Your task to perform on an android device: open chrome privacy settings Image 0: 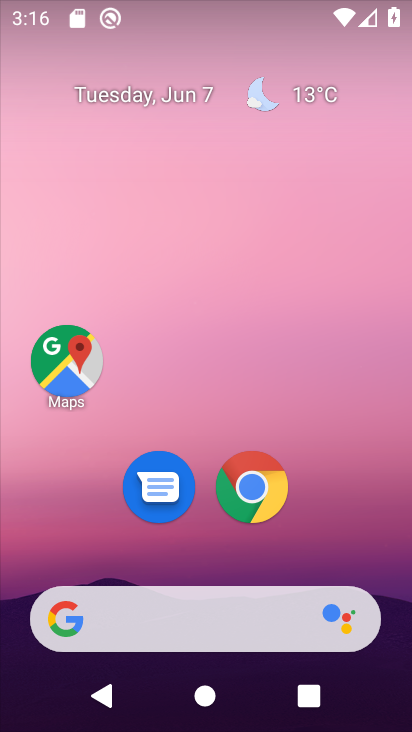
Step 0: press home button
Your task to perform on an android device: open chrome privacy settings Image 1: 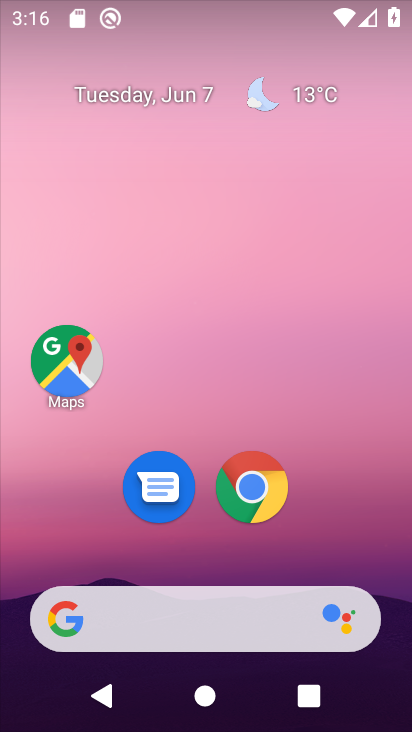
Step 1: click (249, 495)
Your task to perform on an android device: open chrome privacy settings Image 2: 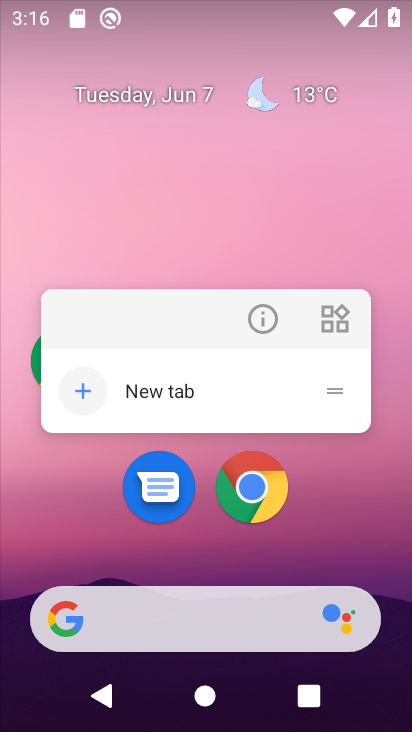
Step 2: click (249, 495)
Your task to perform on an android device: open chrome privacy settings Image 3: 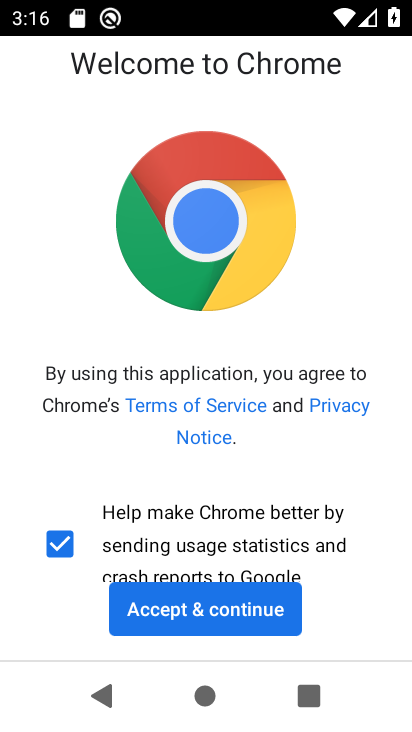
Step 3: click (235, 631)
Your task to perform on an android device: open chrome privacy settings Image 4: 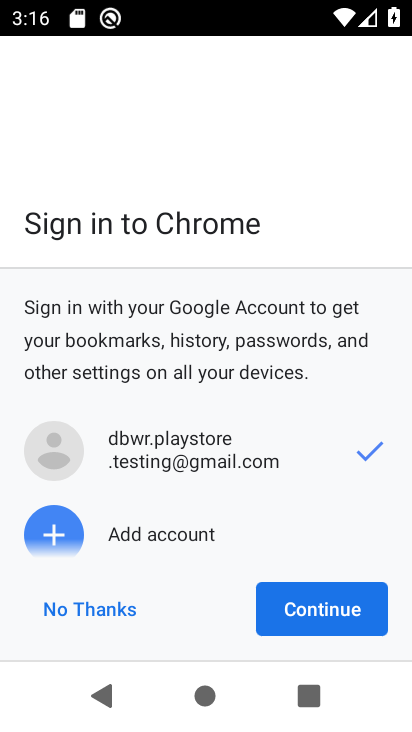
Step 4: click (297, 609)
Your task to perform on an android device: open chrome privacy settings Image 5: 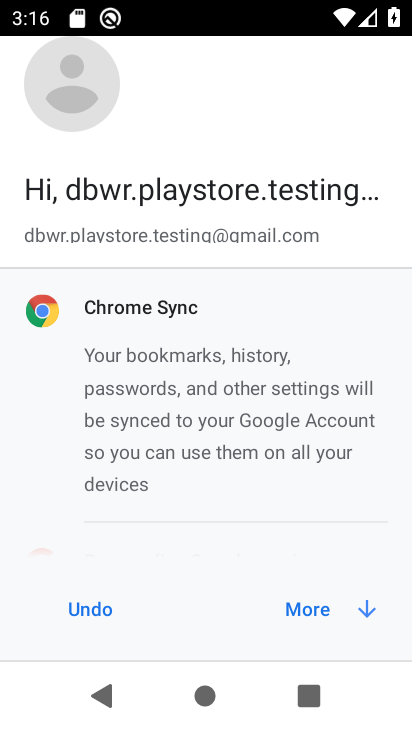
Step 5: click (301, 609)
Your task to perform on an android device: open chrome privacy settings Image 6: 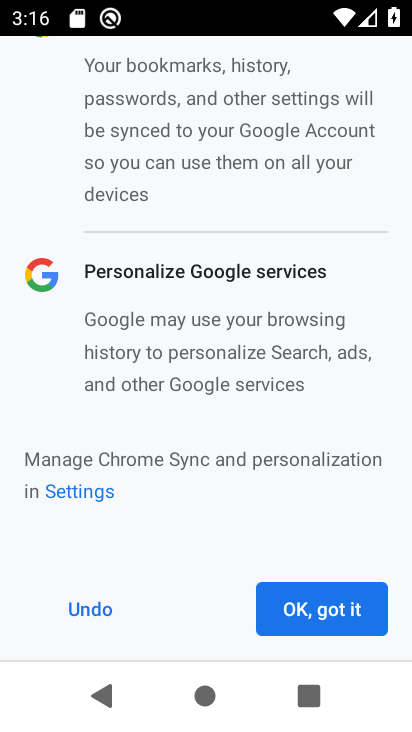
Step 6: click (306, 605)
Your task to perform on an android device: open chrome privacy settings Image 7: 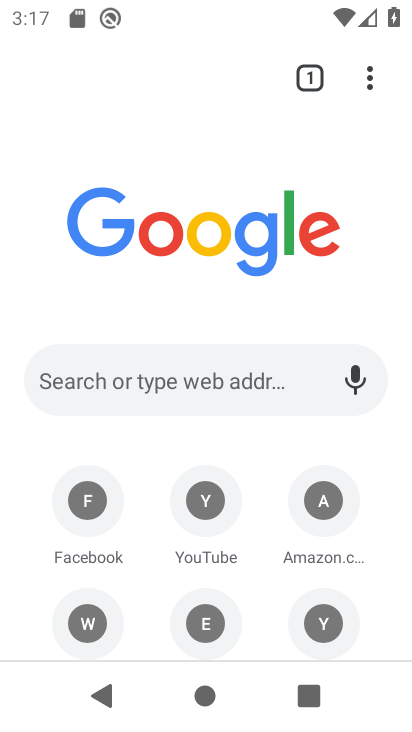
Step 7: click (358, 83)
Your task to perform on an android device: open chrome privacy settings Image 8: 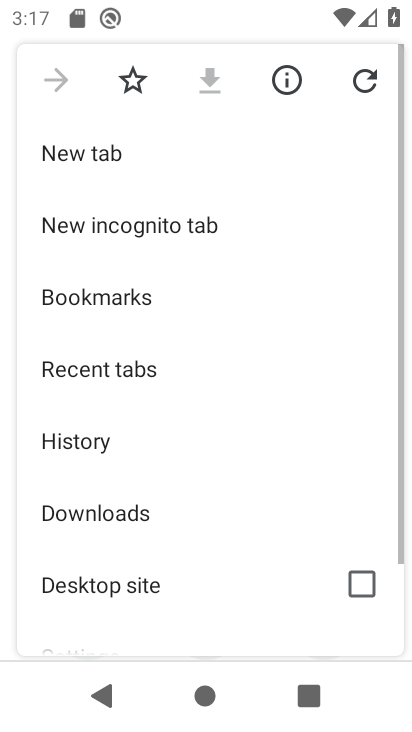
Step 8: drag from (223, 574) to (190, 215)
Your task to perform on an android device: open chrome privacy settings Image 9: 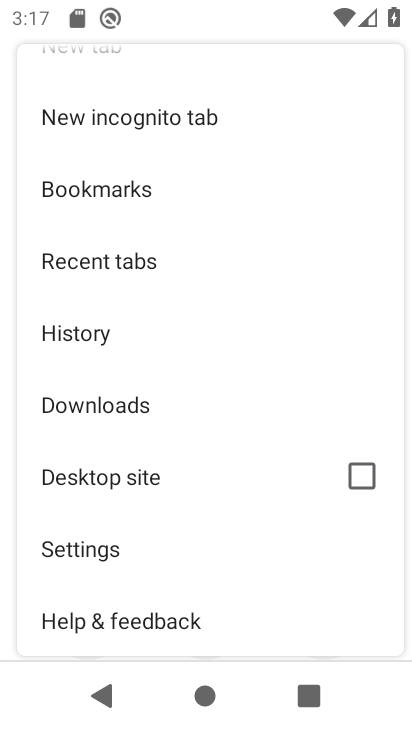
Step 9: click (144, 543)
Your task to perform on an android device: open chrome privacy settings Image 10: 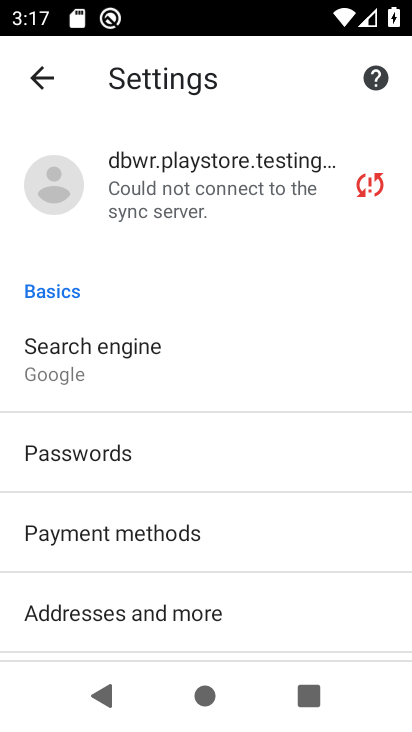
Step 10: drag from (246, 544) to (224, 110)
Your task to perform on an android device: open chrome privacy settings Image 11: 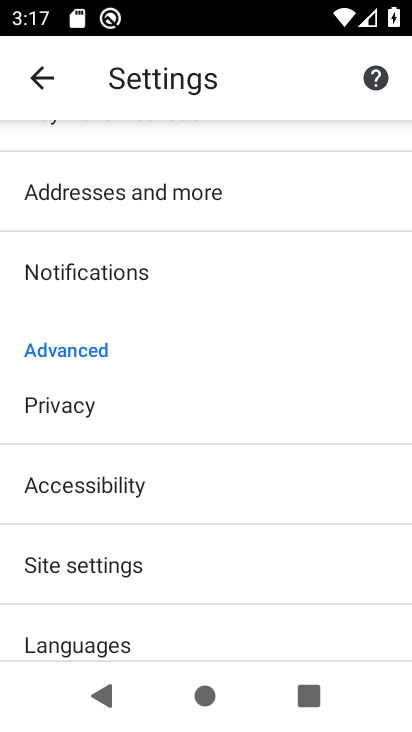
Step 11: click (100, 423)
Your task to perform on an android device: open chrome privacy settings Image 12: 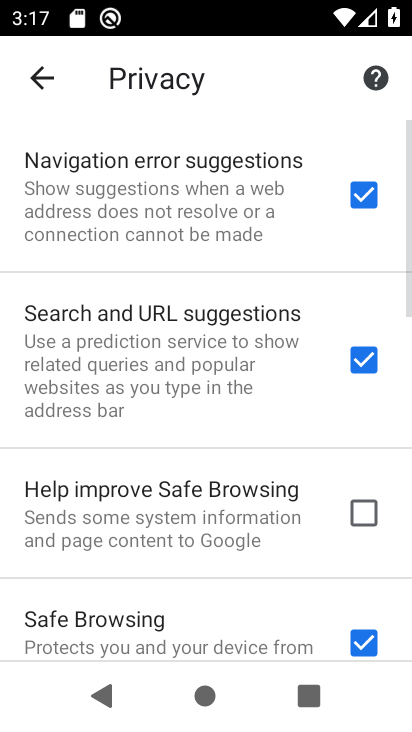
Step 12: task complete